Your task to perform on an android device: What is the news today? Image 0: 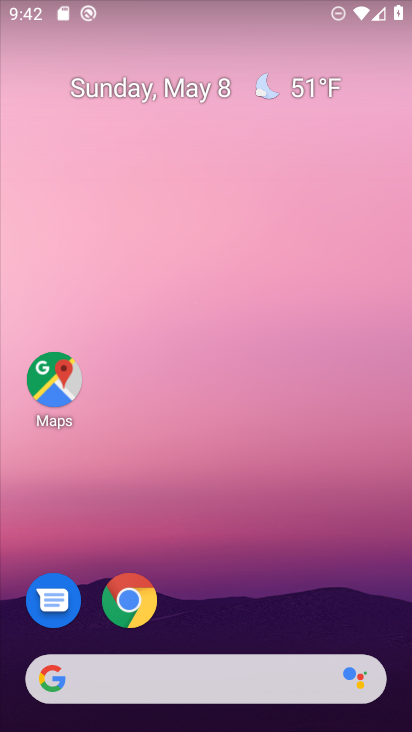
Step 0: drag from (2, 290) to (400, 514)
Your task to perform on an android device: What is the news today? Image 1: 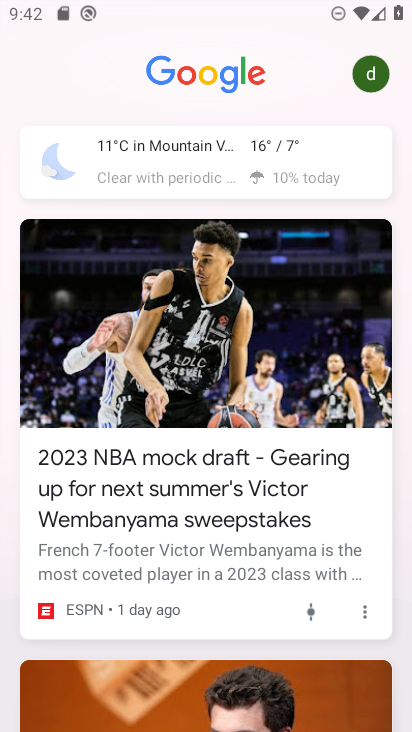
Step 1: task complete